Your task to perform on an android device: Play the last video I watched on Youtube Image 0: 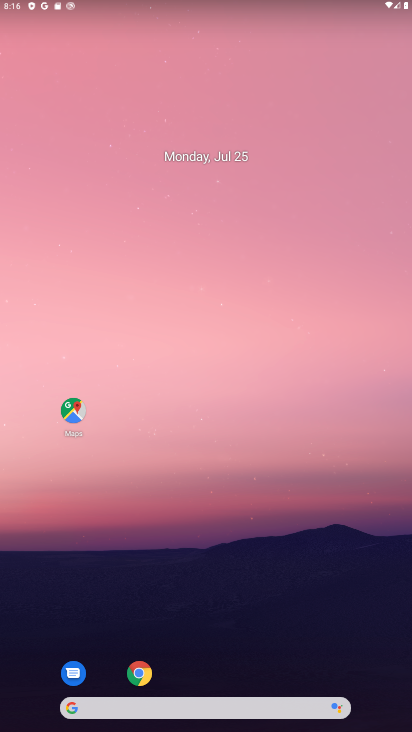
Step 0: drag from (291, 681) to (254, 49)
Your task to perform on an android device: Play the last video I watched on Youtube Image 1: 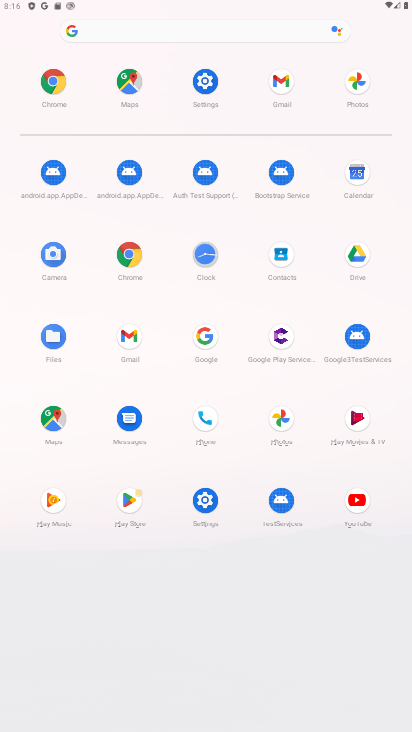
Step 1: click (353, 503)
Your task to perform on an android device: Play the last video I watched on Youtube Image 2: 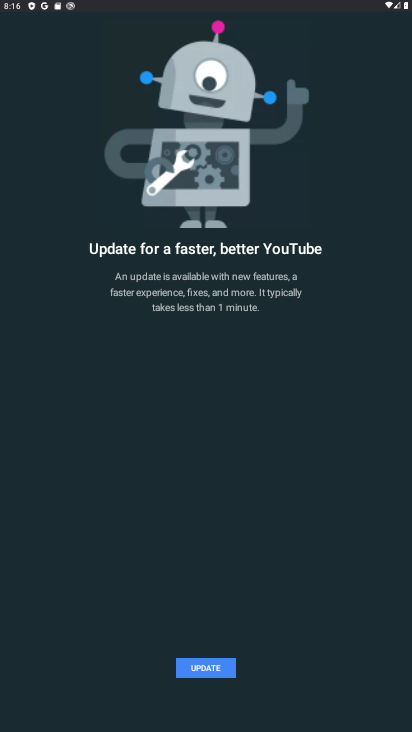
Step 2: click (207, 664)
Your task to perform on an android device: Play the last video I watched on Youtube Image 3: 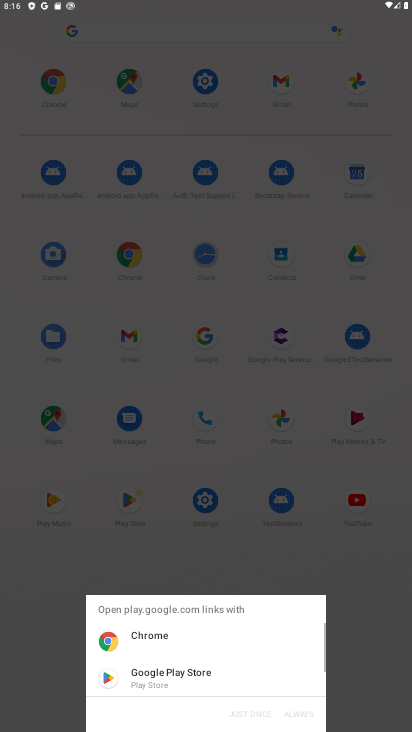
Step 3: click (141, 680)
Your task to perform on an android device: Play the last video I watched on Youtube Image 4: 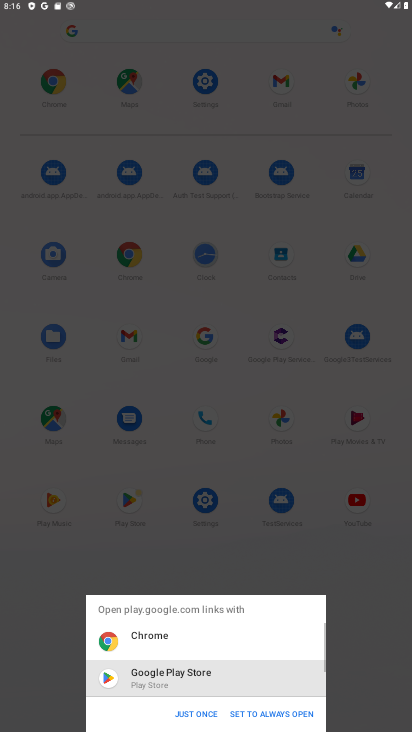
Step 4: click (166, 718)
Your task to perform on an android device: Play the last video I watched on Youtube Image 5: 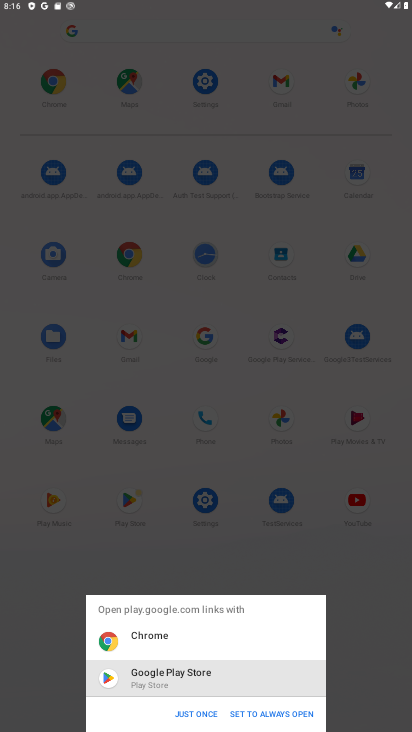
Step 5: click (175, 718)
Your task to perform on an android device: Play the last video I watched on Youtube Image 6: 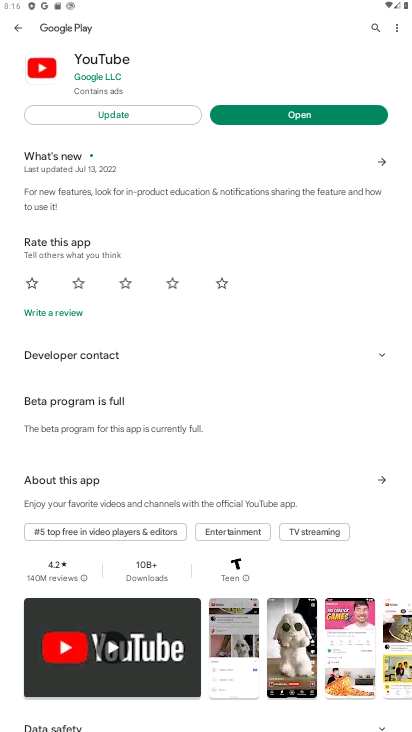
Step 6: click (87, 116)
Your task to perform on an android device: Play the last video I watched on Youtube Image 7: 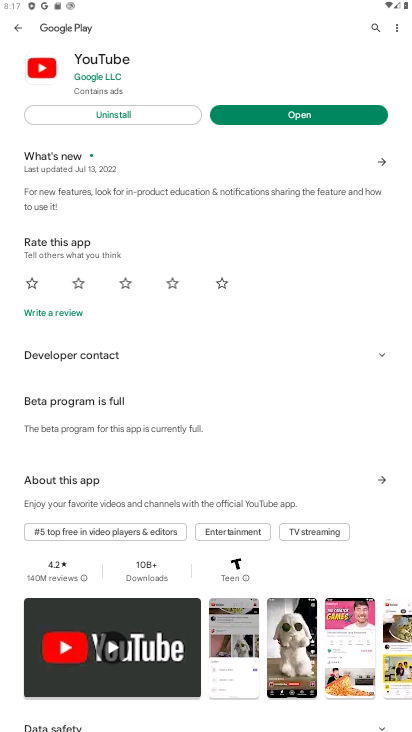
Step 7: click (324, 119)
Your task to perform on an android device: Play the last video I watched on Youtube Image 8: 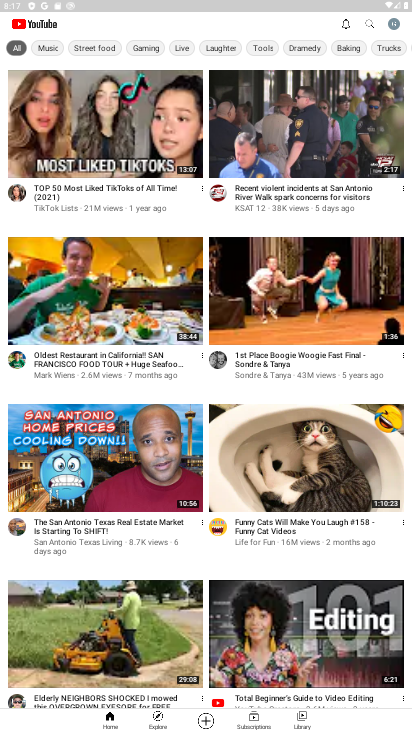
Step 8: click (302, 730)
Your task to perform on an android device: Play the last video I watched on Youtube Image 9: 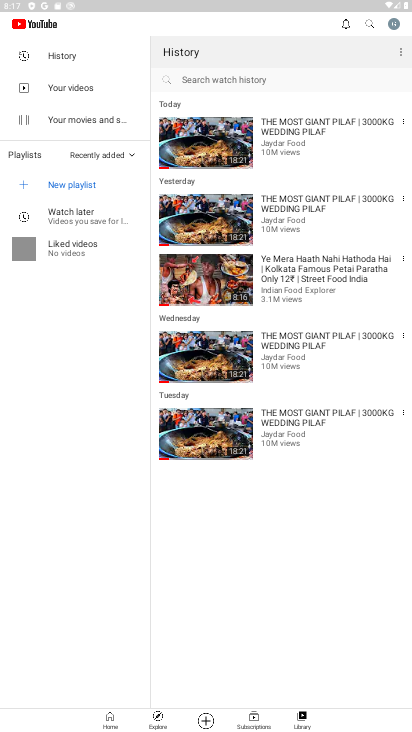
Step 9: task complete